Your task to perform on an android device: turn on javascript in the chrome app Image 0: 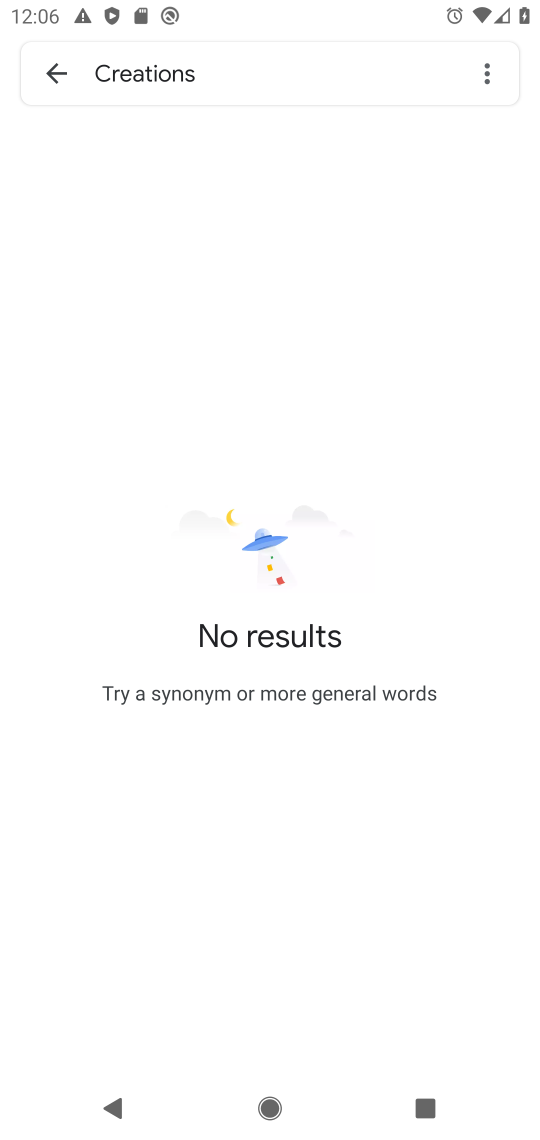
Step 0: press home button
Your task to perform on an android device: turn on javascript in the chrome app Image 1: 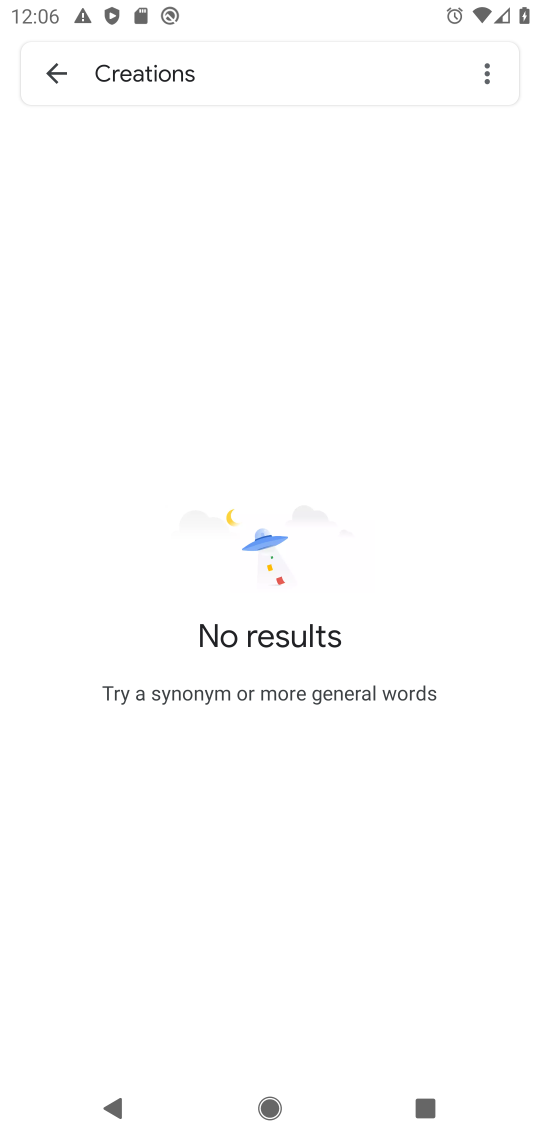
Step 1: press home button
Your task to perform on an android device: turn on javascript in the chrome app Image 2: 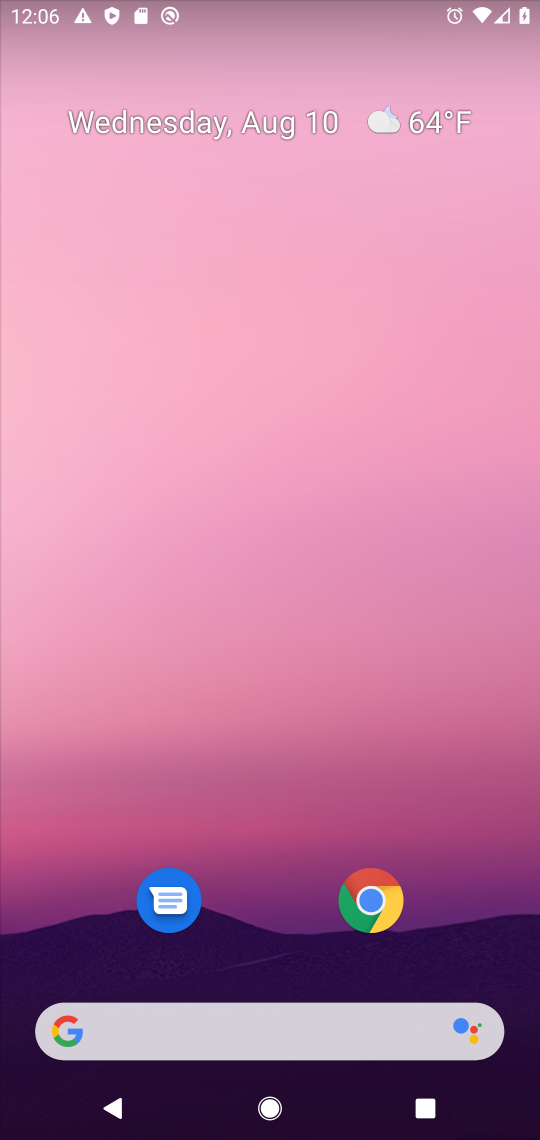
Step 2: click (375, 906)
Your task to perform on an android device: turn on javascript in the chrome app Image 3: 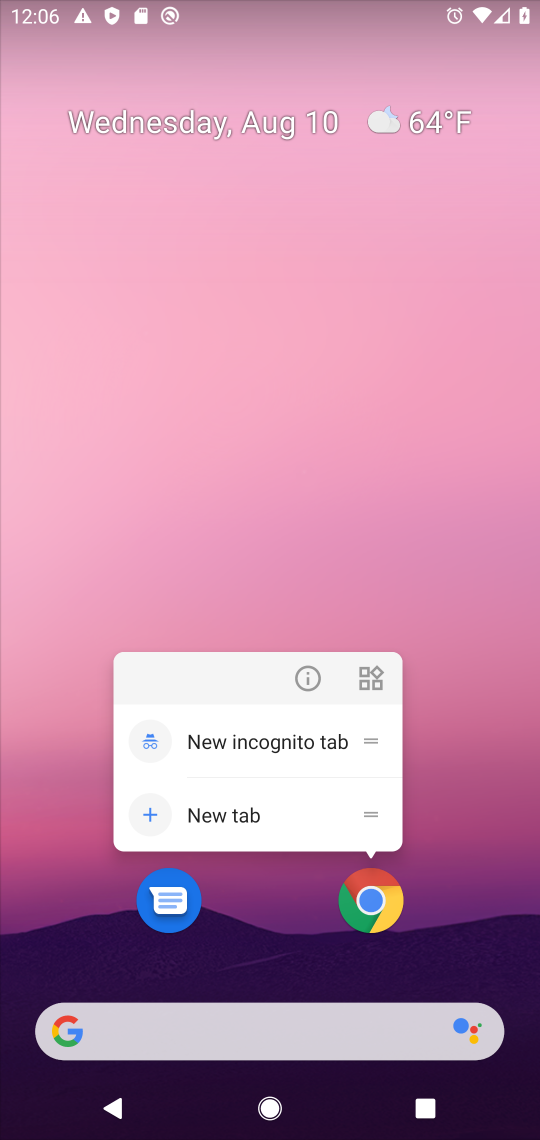
Step 3: click (375, 906)
Your task to perform on an android device: turn on javascript in the chrome app Image 4: 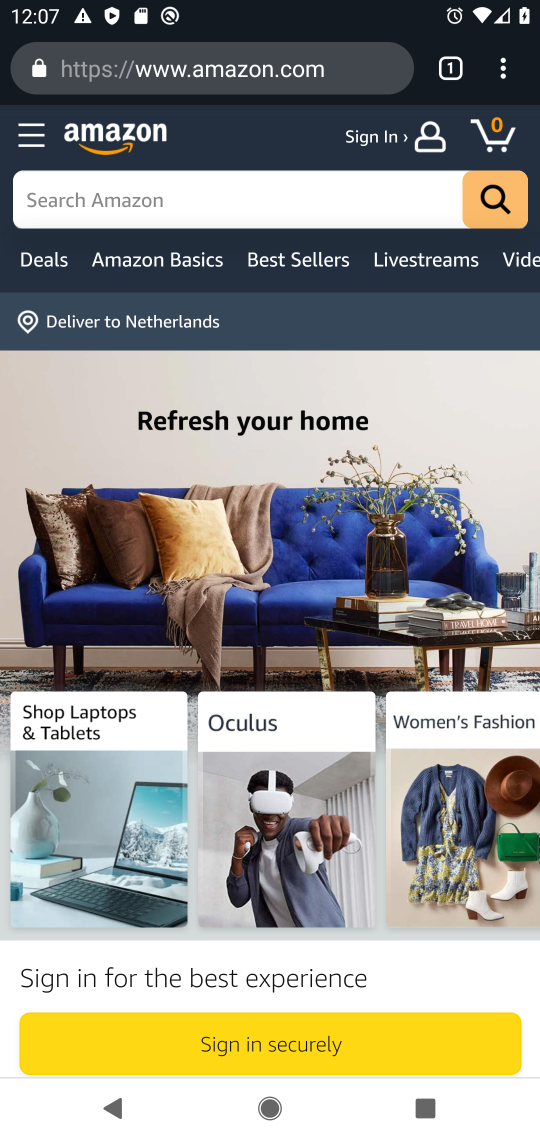
Step 4: click (501, 72)
Your task to perform on an android device: turn on javascript in the chrome app Image 5: 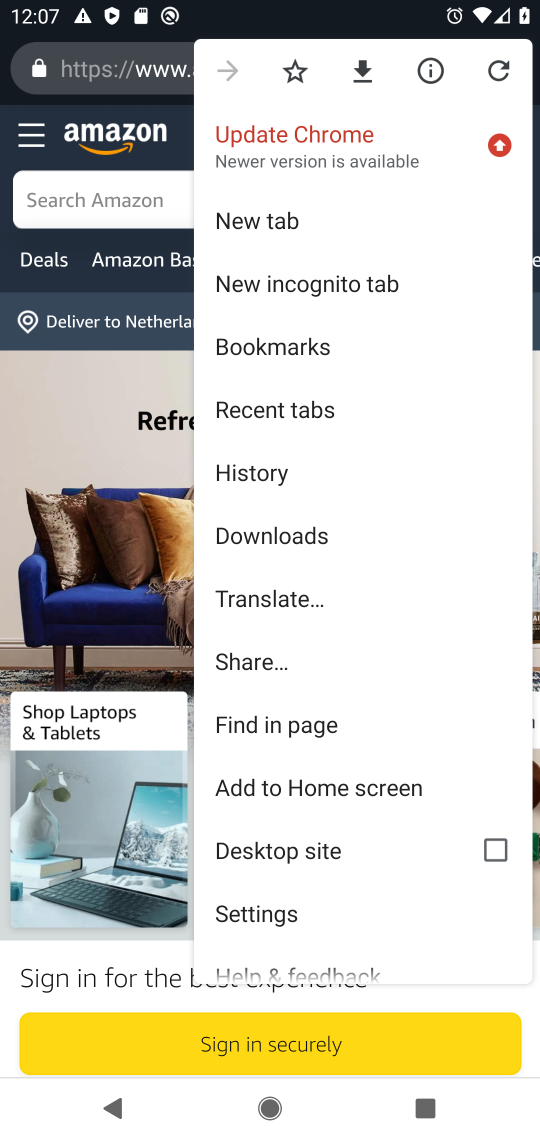
Step 5: click (300, 906)
Your task to perform on an android device: turn on javascript in the chrome app Image 6: 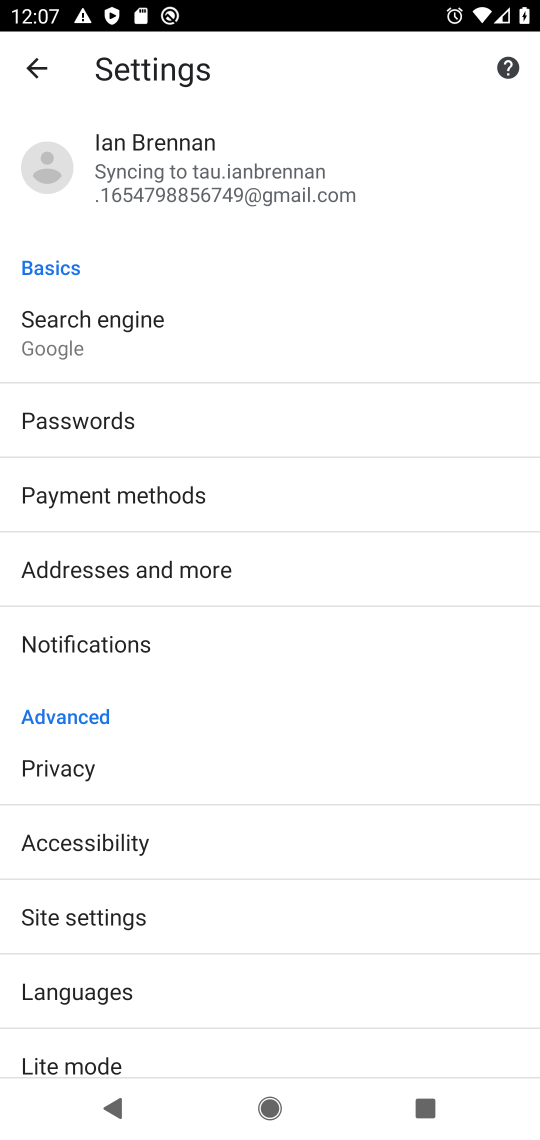
Step 6: click (195, 905)
Your task to perform on an android device: turn on javascript in the chrome app Image 7: 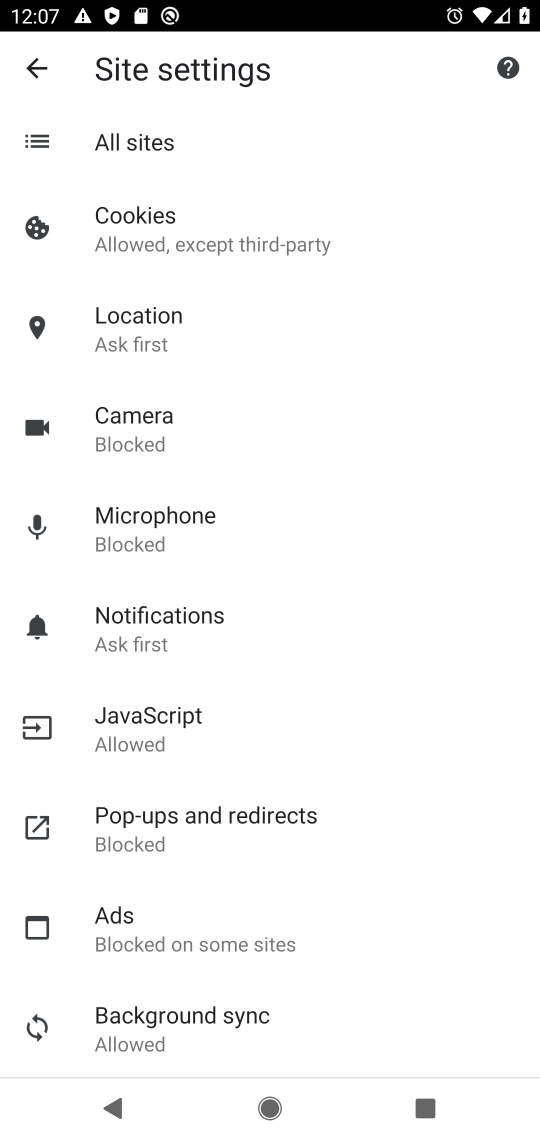
Step 7: click (214, 738)
Your task to perform on an android device: turn on javascript in the chrome app Image 8: 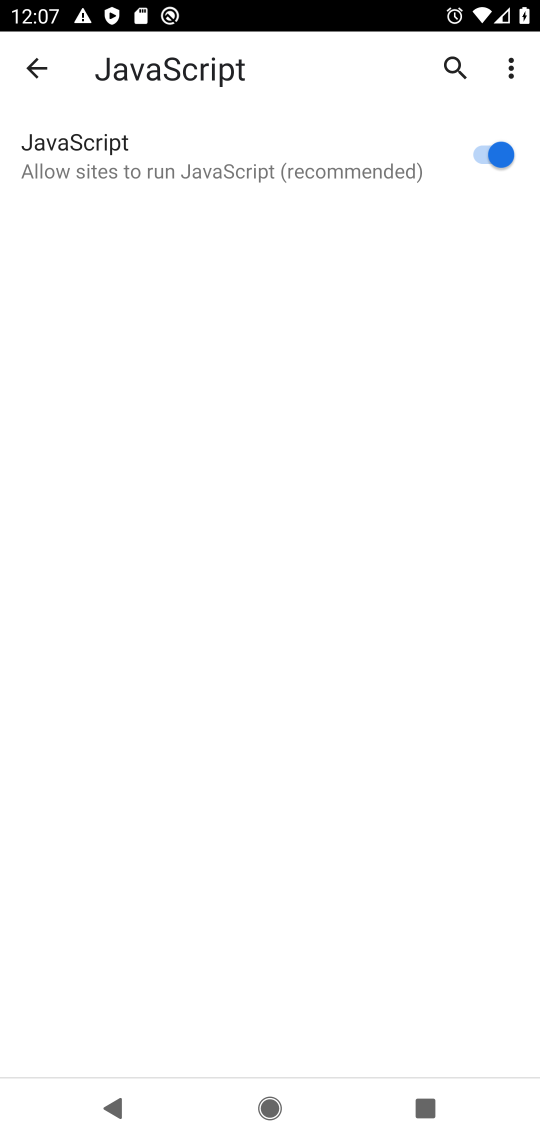
Step 8: click (493, 148)
Your task to perform on an android device: turn on javascript in the chrome app Image 9: 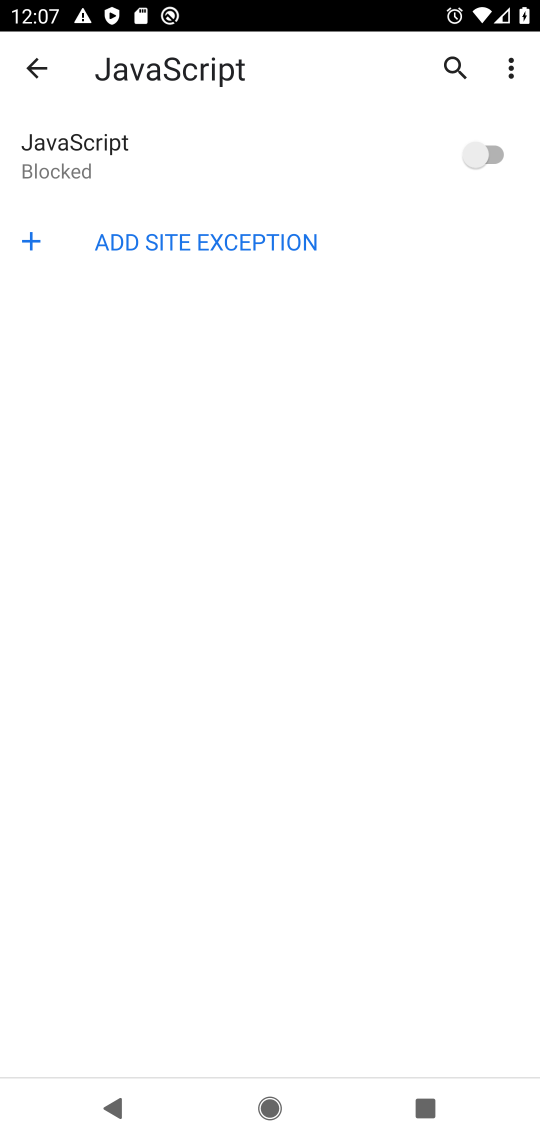
Step 9: task complete